Your task to perform on an android device: make emails show in primary in the gmail app Image 0: 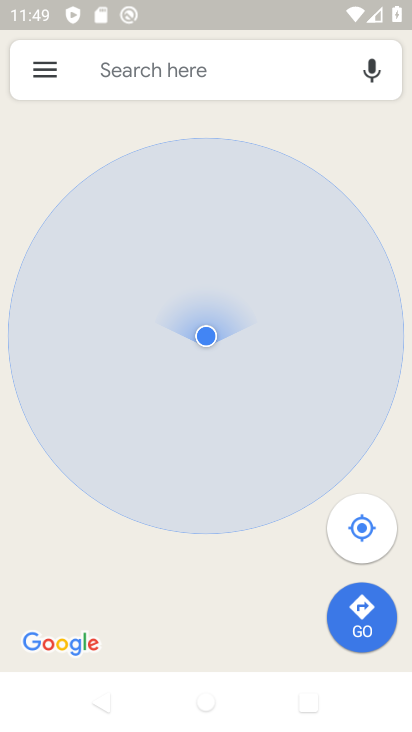
Step 0: press home button
Your task to perform on an android device: make emails show in primary in the gmail app Image 1: 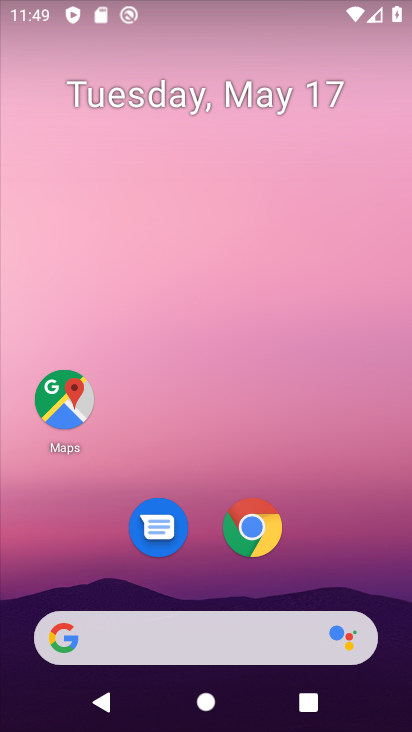
Step 1: drag from (229, 544) to (249, 125)
Your task to perform on an android device: make emails show in primary in the gmail app Image 2: 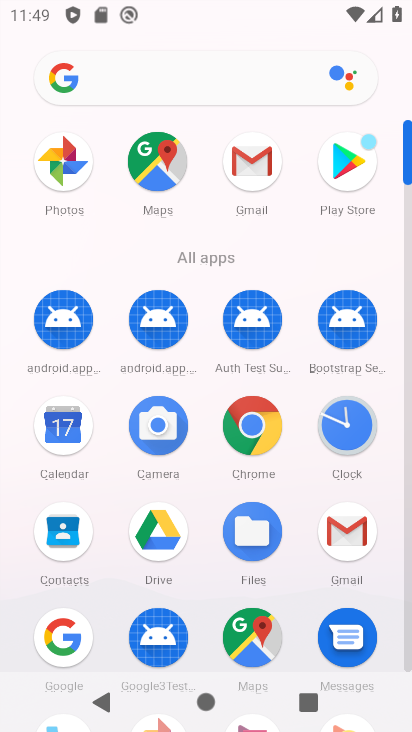
Step 2: click (361, 535)
Your task to perform on an android device: make emails show in primary in the gmail app Image 3: 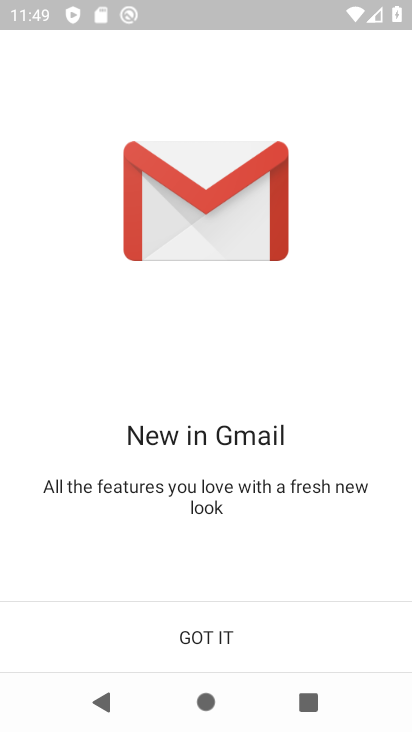
Step 3: click (215, 632)
Your task to perform on an android device: make emails show in primary in the gmail app Image 4: 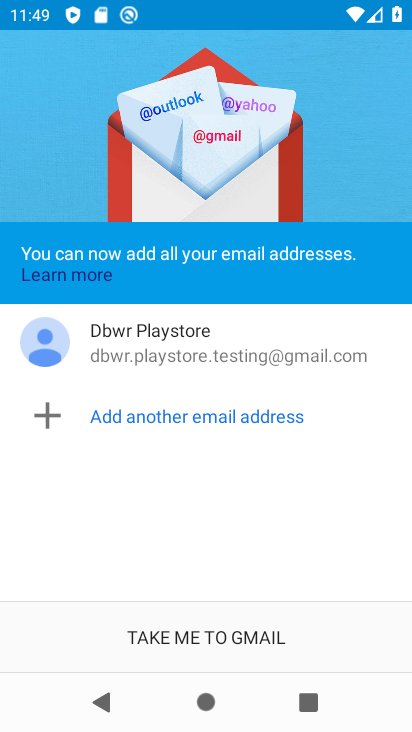
Step 4: click (214, 634)
Your task to perform on an android device: make emails show in primary in the gmail app Image 5: 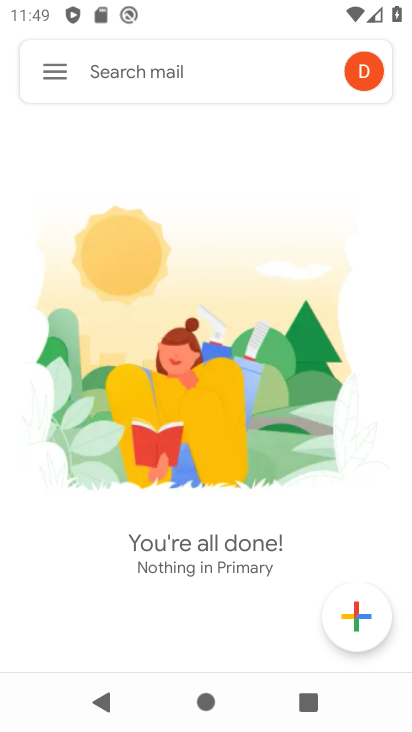
Step 5: click (63, 70)
Your task to perform on an android device: make emails show in primary in the gmail app Image 6: 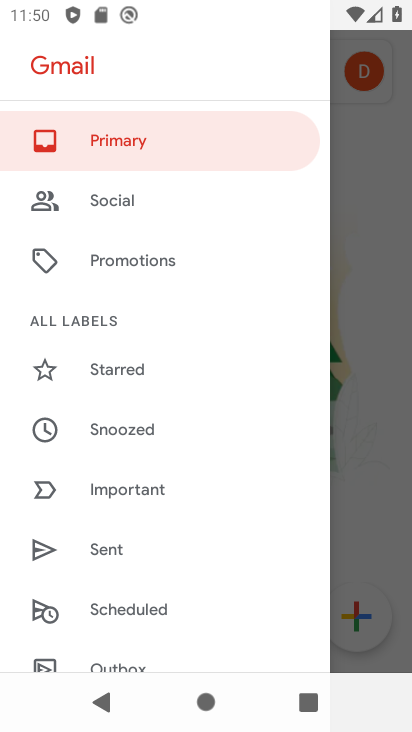
Step 6: drag from (129, 545) to (199, 85)
Your task to perform on an android device: make emails show in primary in the gmail app Image 7: 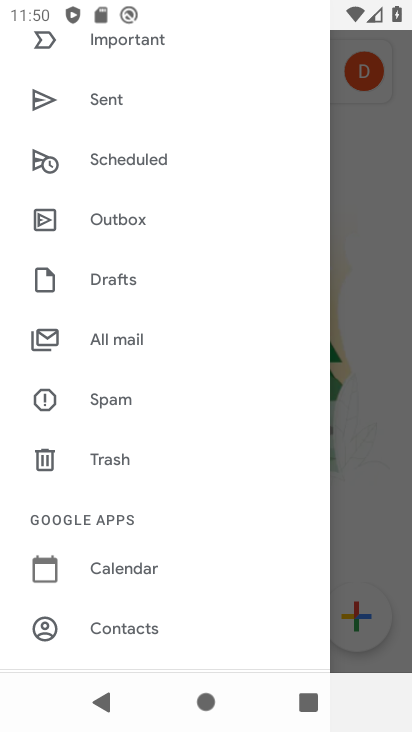
Step 7: drag from (164, 577) to (223, 277)
Your task to perform on an android device: make emails show in primary in the gmail app Image 8: 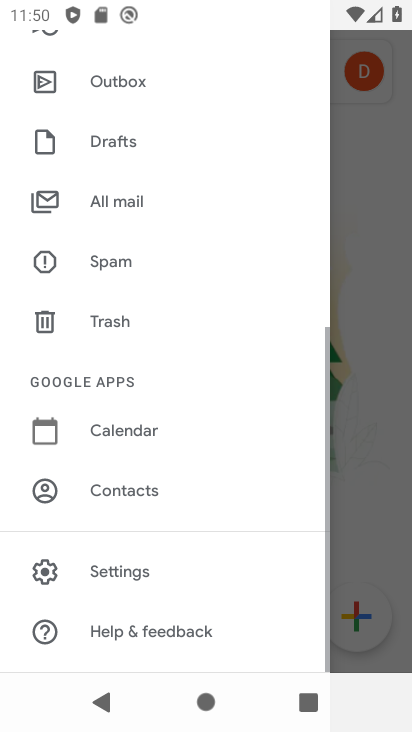
Step 8: click (144, 579)
Your task to perform on an android device: make emails show in primary in the gmail app Image 9: 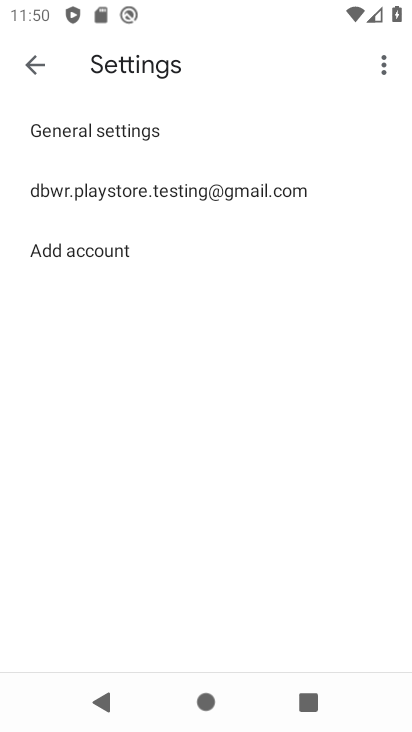
Step 9: click (145, 192)
Your task to perform on an android device: make emails show in primary in the gmail app Image 10: 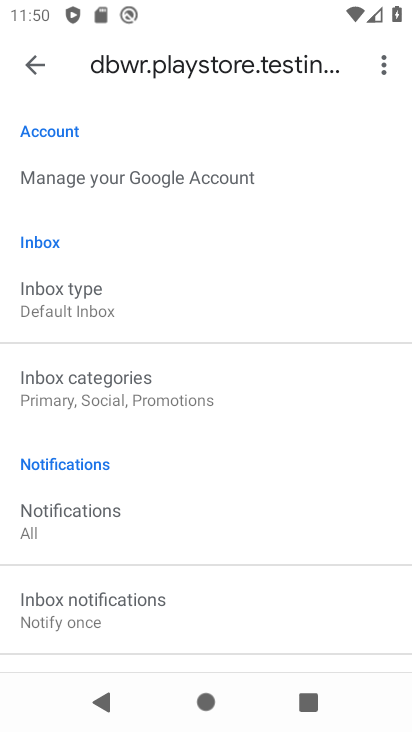
Step 10: click (85, 387)
Your task to perform on an android device: make emails show in primary in the gmail app Image 11: 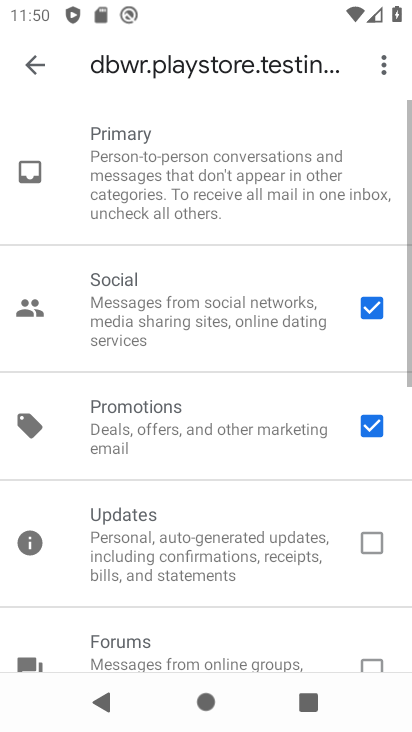
Step 11: click (376, 307)
Your task to perform on an android device: make emails show in primary in the gmail app Image 12: 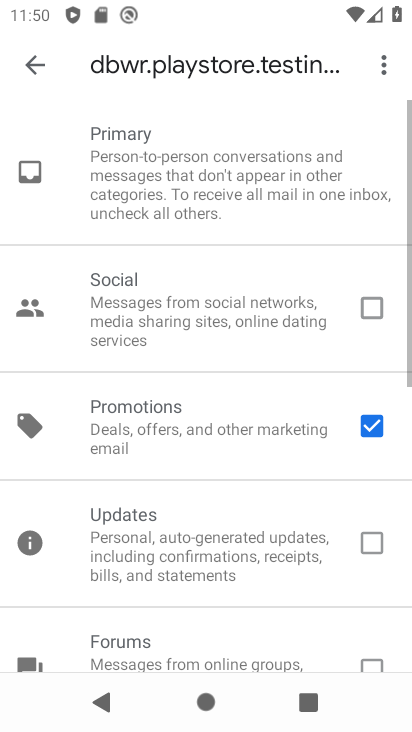
Step 12: click (373, 425)
Your task to perform on an android device: make emails show in primary in the gmail app Image 13: 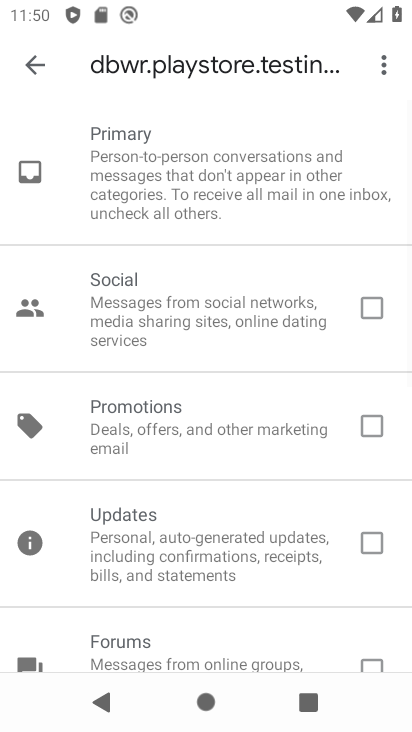
Step 13: task complete